Your task to perform on an android device: Open privacy settings Image 0: 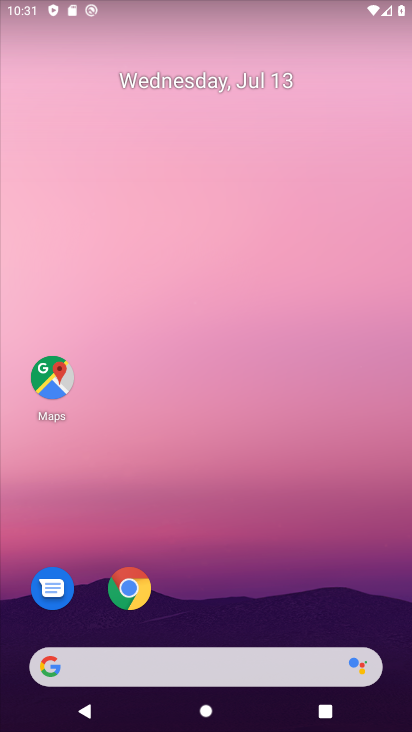
Step 0: drag from (306, 564) to (251, 120)
Your task to perform on an android device: Open privacy settings Image 1: 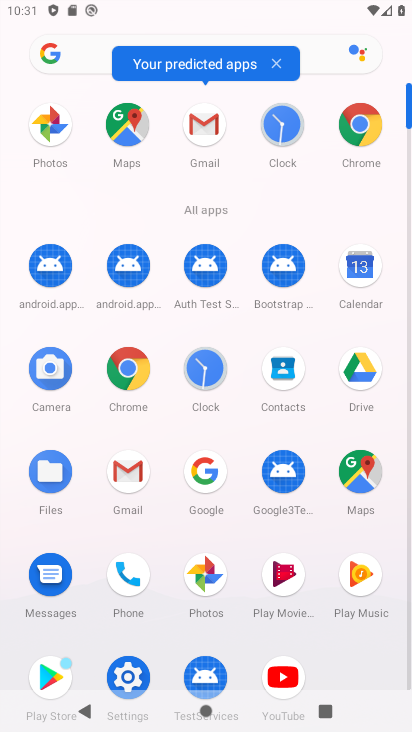
Step 1: click (125, 680)
Your task to perform on an android device: Open privacy settings Image 2: 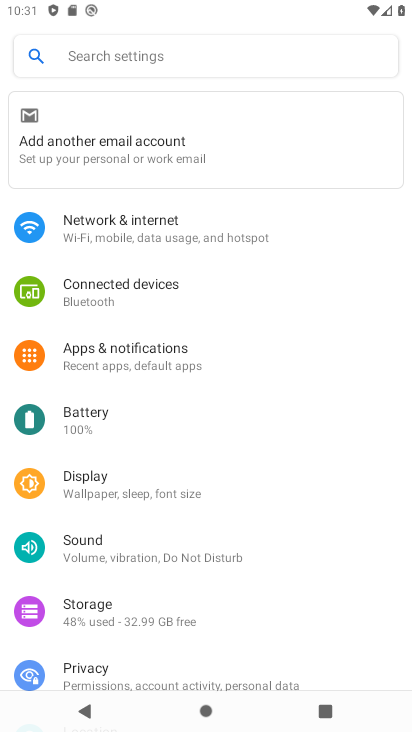
Step 2: click (125, 680)
Your task to perform on an android device: Open privacy settings Image 3: 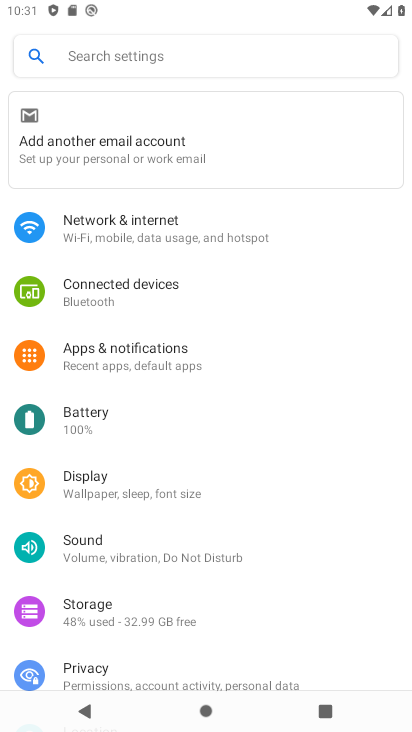
Step 3: click (187, 674)
Your task to perform on an android device: Open privacy settings Image 4: 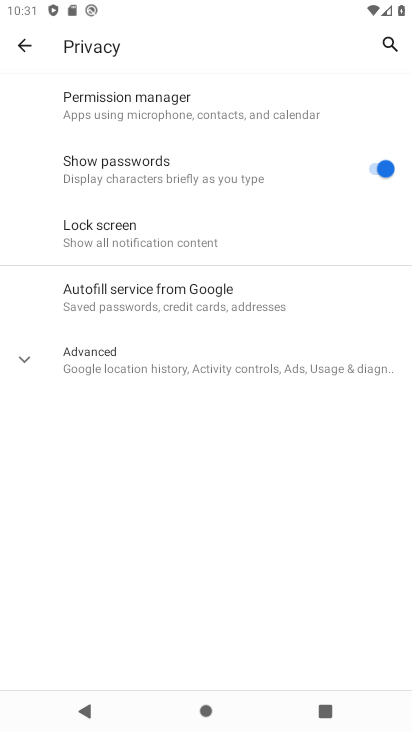
Step 4: task complete